Your task to perform on an android device: turn on the 12-hour format for clock Image 0: 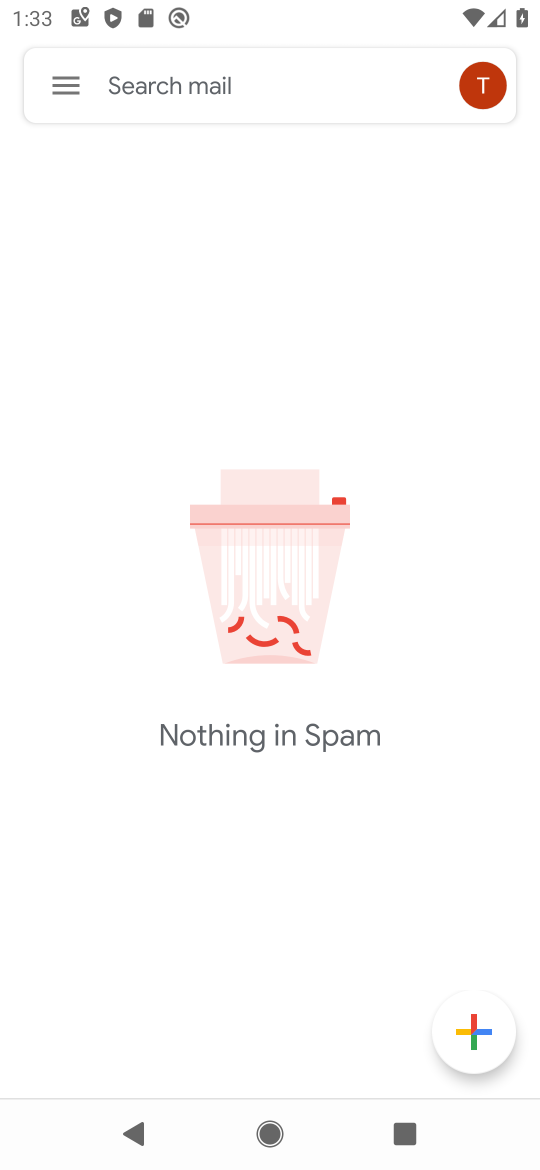
Step 0: press home button
Your task to perform on an android device: turn on the 12-hour format for clock Image 1: 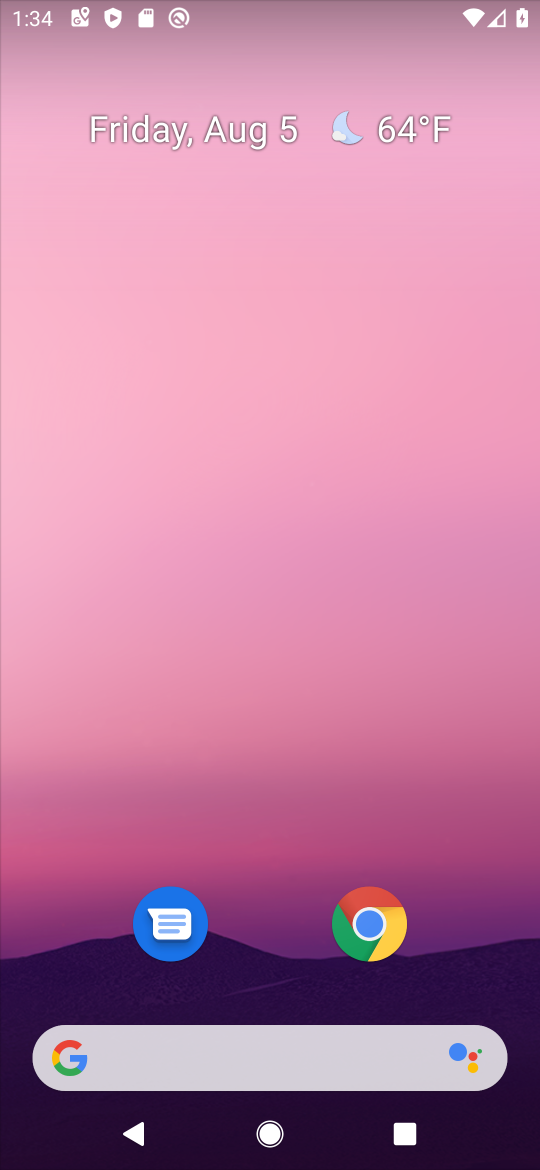
Step 1: drag from (254, 1060) to (416, 253)
Your task to perform on an android device: turn on the 12-hour format for clock Image 2: 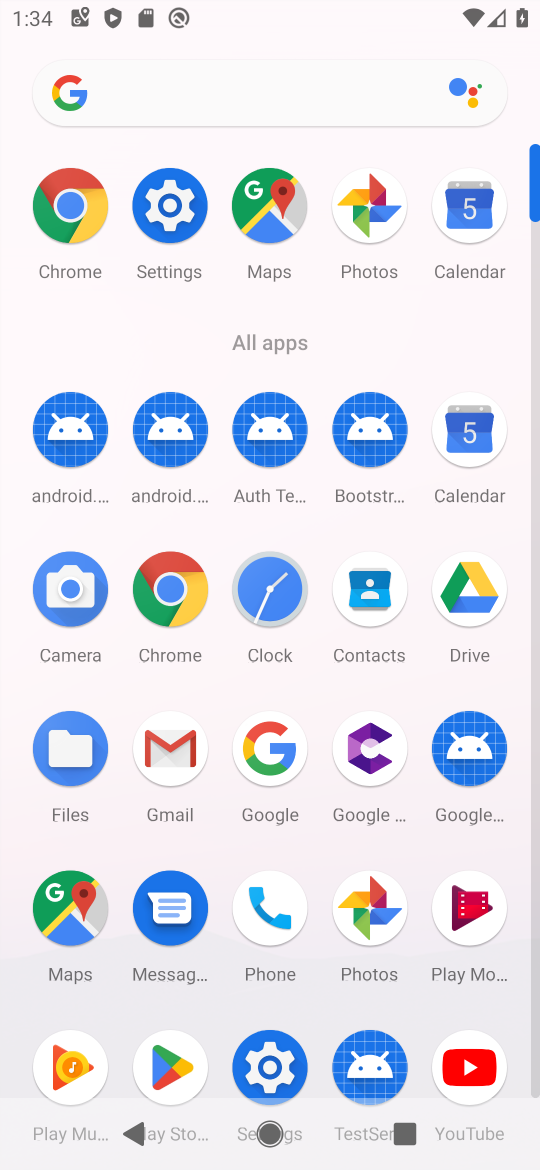
Step 2: click (272, 589)
Your task to perform on an android device: turn on the 12-hour format for clock Image 3: 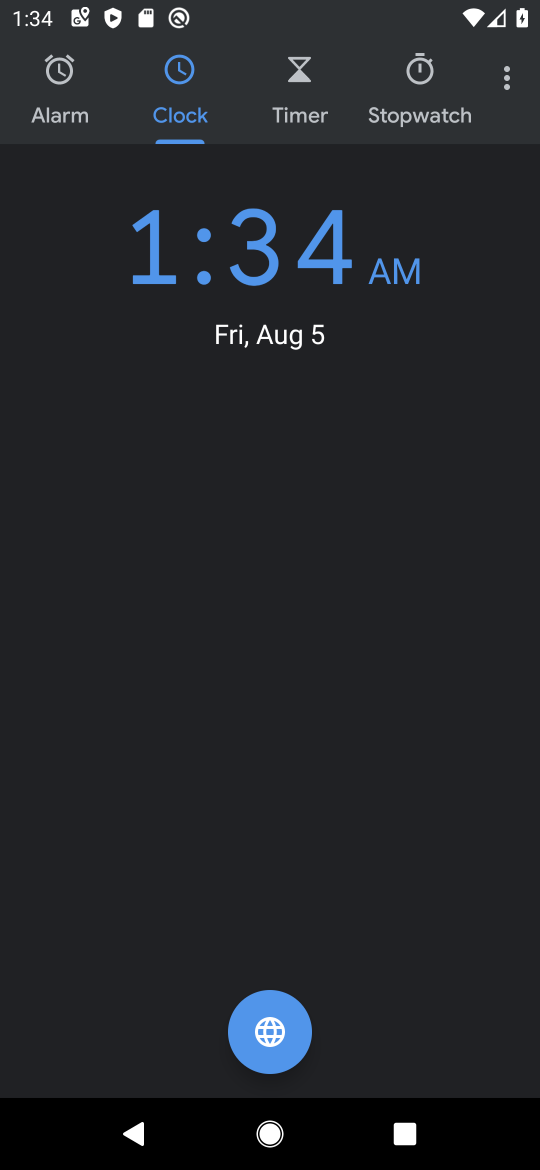
Step 3: click (508, 85)
Your task to perform on an android device: turn on the 12-hour format for clock Image 4: 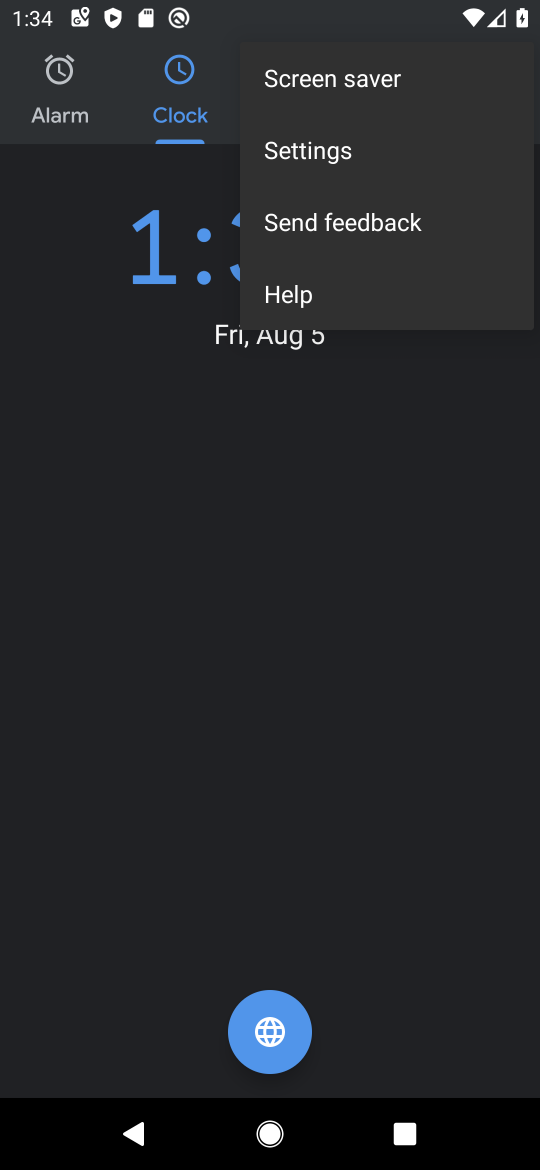
Step 4: click (322, 151)
Your task to perform on an android device: turn on the 12-hour format for clock Image 5: 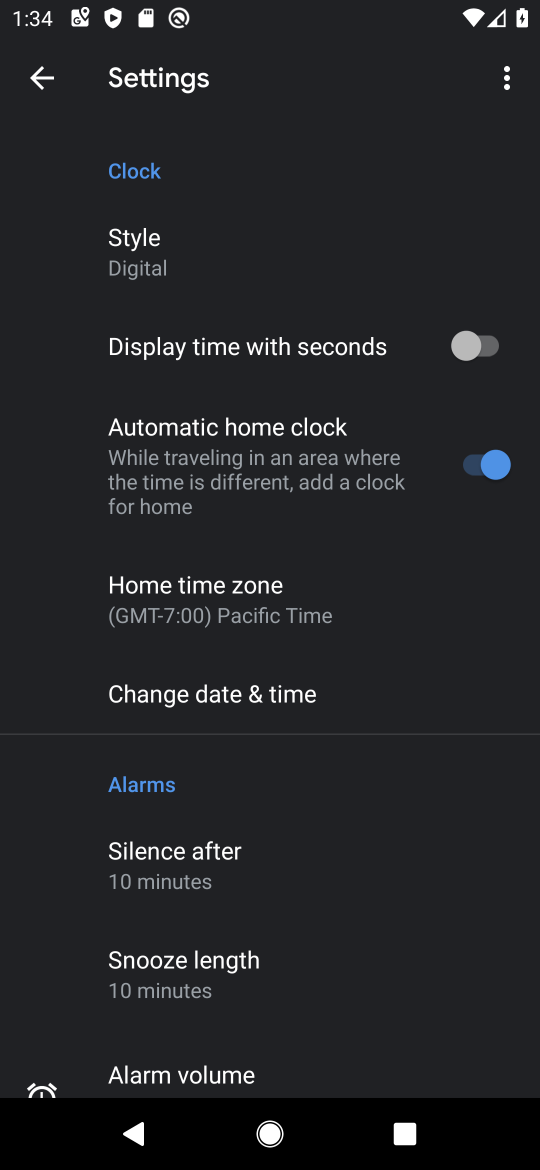
Step 5: click (264, 695)
Your task to perform on an android device: turn on the 12-hour format for clock Image 6: 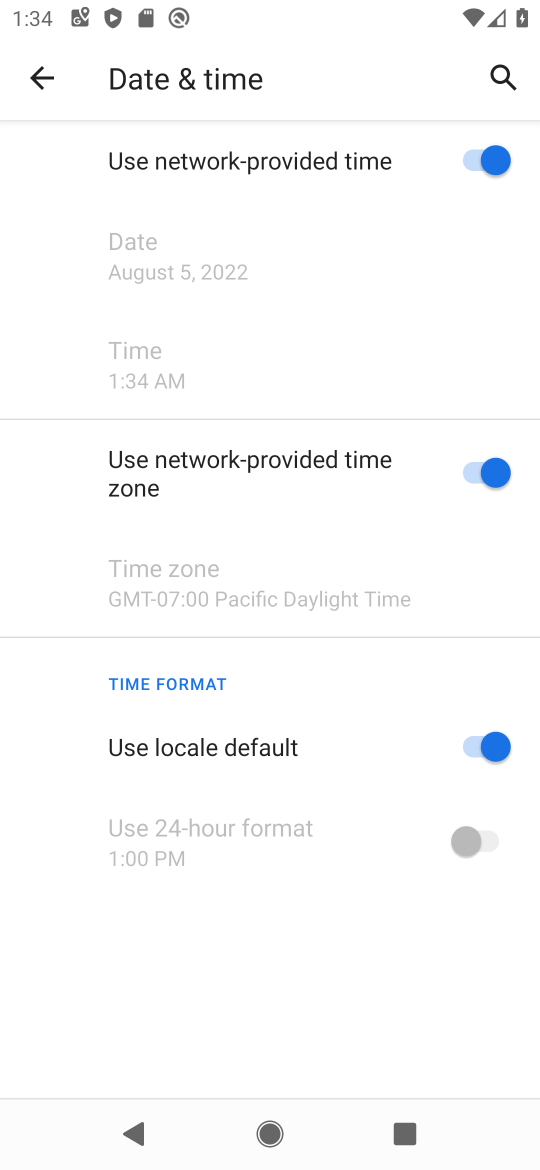
Step 6: task complete